Your task to perform on an android device: Go to Maps Image 0: 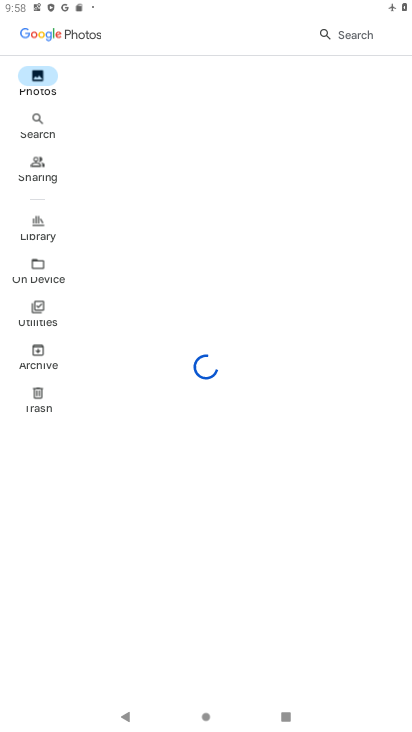
Step 0: click (313, 619)
Your task to perform on an android device: Go to Maps Image 1: 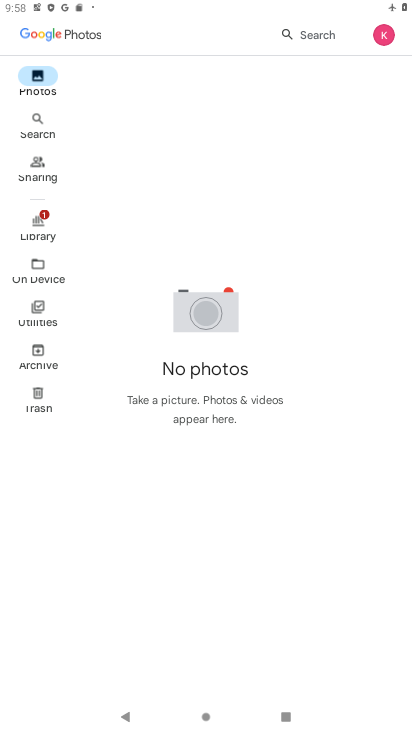
Step 1: press back button
Your task to perform on an android device: Go to Maps Image 2: 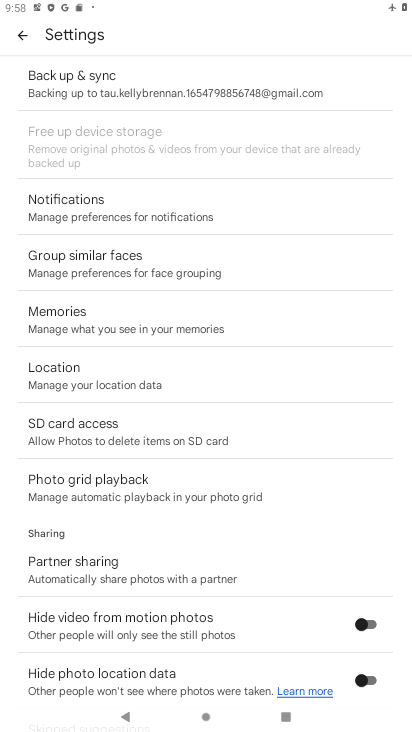
Step 2: press back button
Your task to perform on an android device: Go to Maps Image 3: 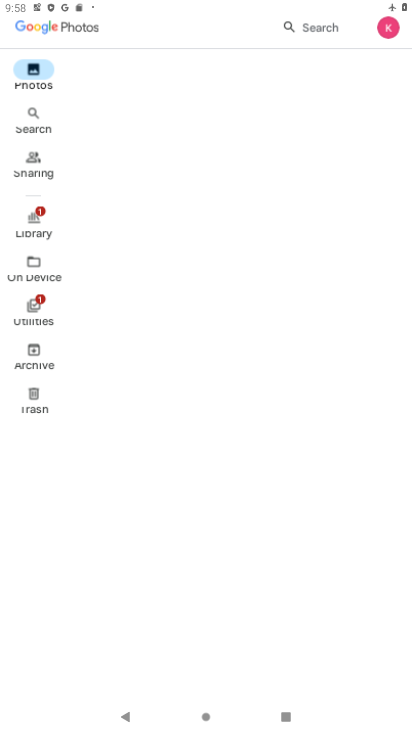
Step 3: press back button
Your task to perform on an android device: Go to Maps Image 4: 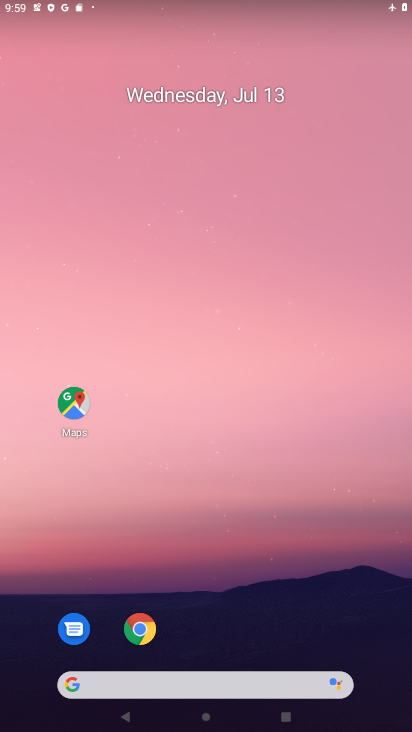
Step 4: click (79, 425)
Your task to perform on an android device: Go to Maps Image 5: 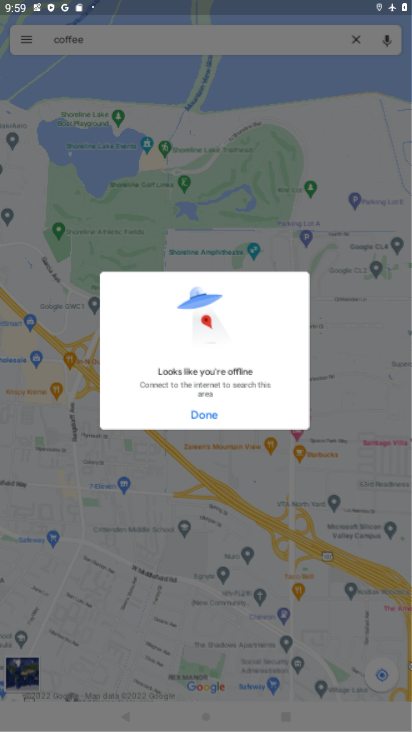
Step 5: task complete